Your task to perform on an android device: Empty the shopping cart on bestbuy.com. Add "sony triple a" to the cart on bestbuy.com, then select checkout. Image 0: 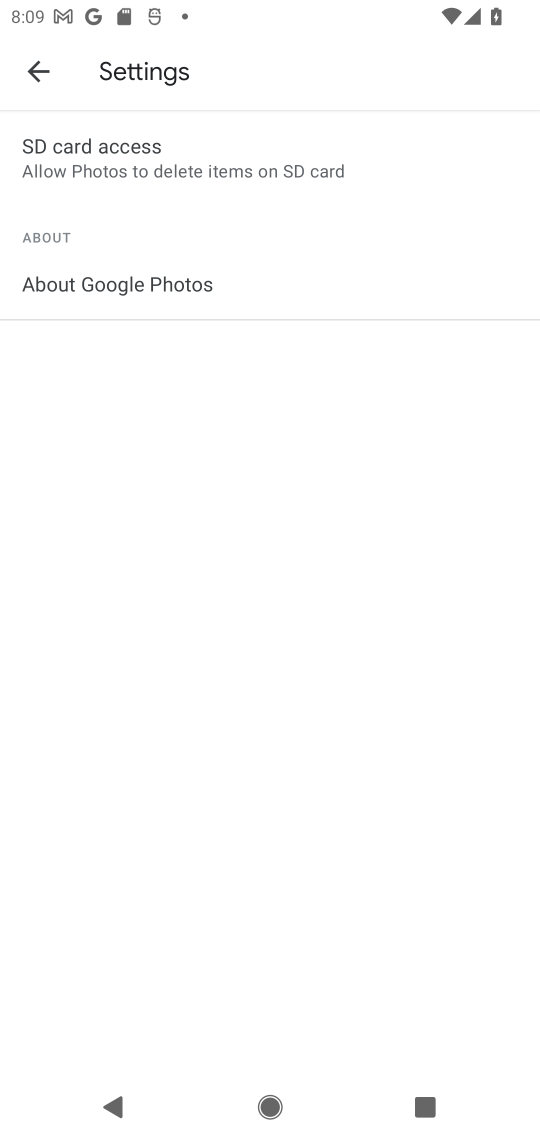
Step 0: press home button
Your task to perform on an android device: Empty the shopping cart on bestbuy.com. Add "sony triple a" to the cart on bestbuy.com, then select checkout. Image 1: 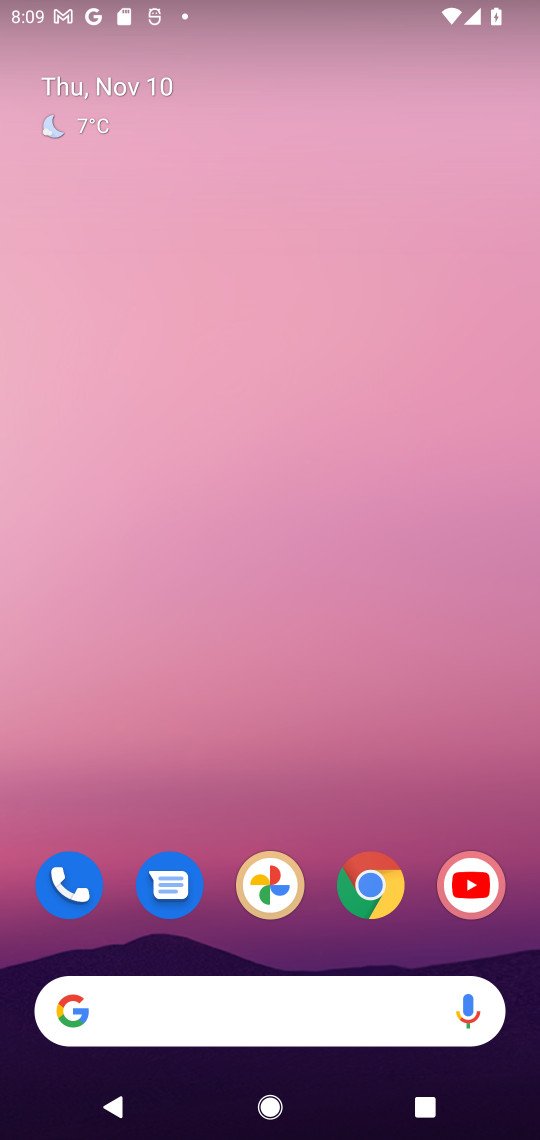
Step 1: click (355, 887)
Your task to perform on an android device: Empty the shopping cart on bestbuy.com. Add "sony triple a" to the cart on bestbuy.com, then select checkout. Image 2: 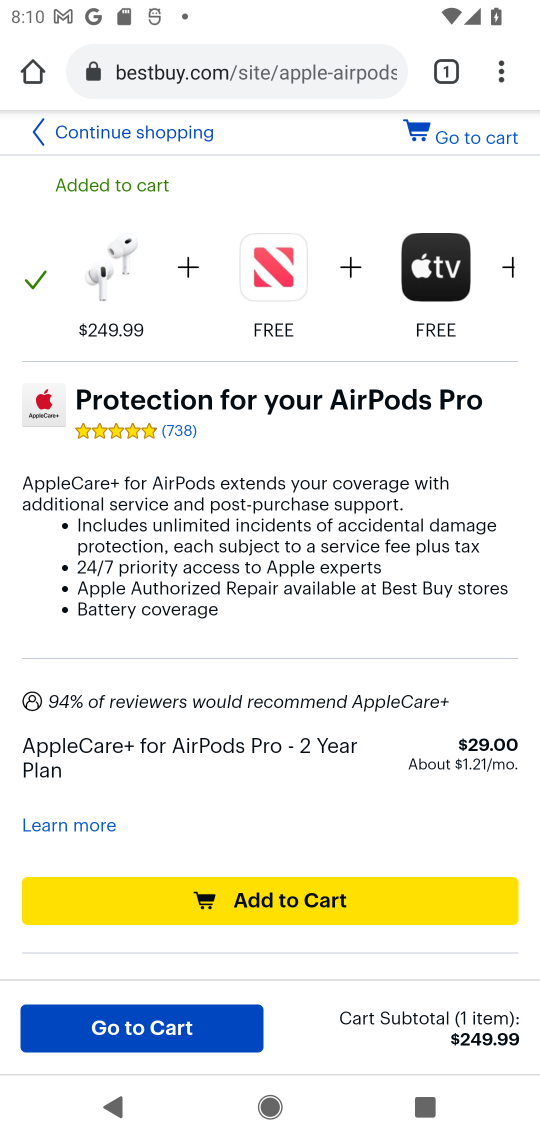
Step 2: drag from (320, 200) to (396, 800)
Your task to perform on an android device: Empty the shopping cart on bestbuy.com. Add "sony triple a" to the cart on bestbuy.com, then select checkout. Image 3: 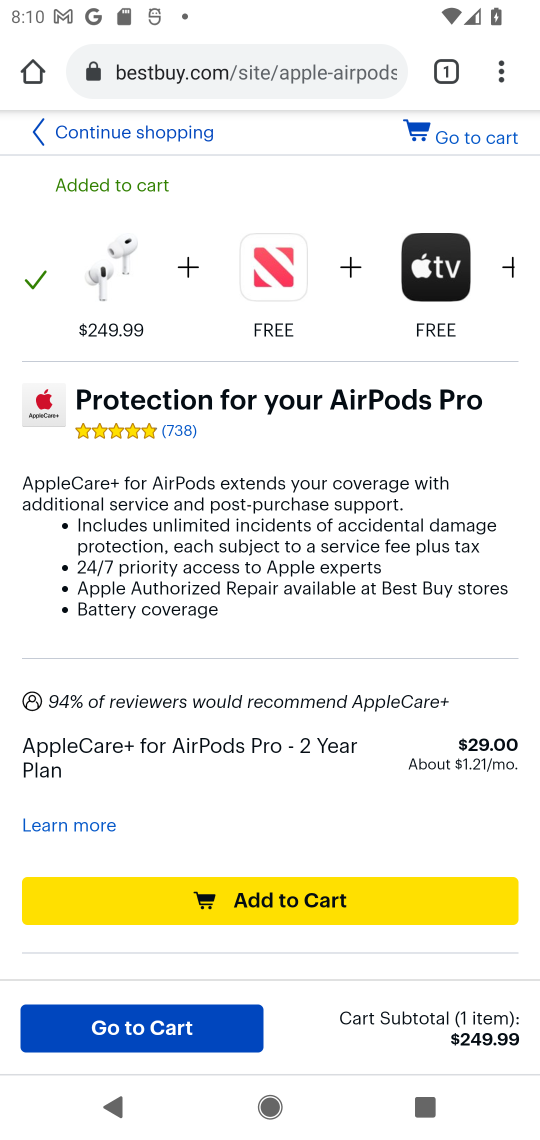
Step 3: press back button
Your task to perform on an android device: Empty the shopping cart on bestbuy.com. Add "sony triple a" to the cart on bestbuy.com, then select checkout. Image 4: 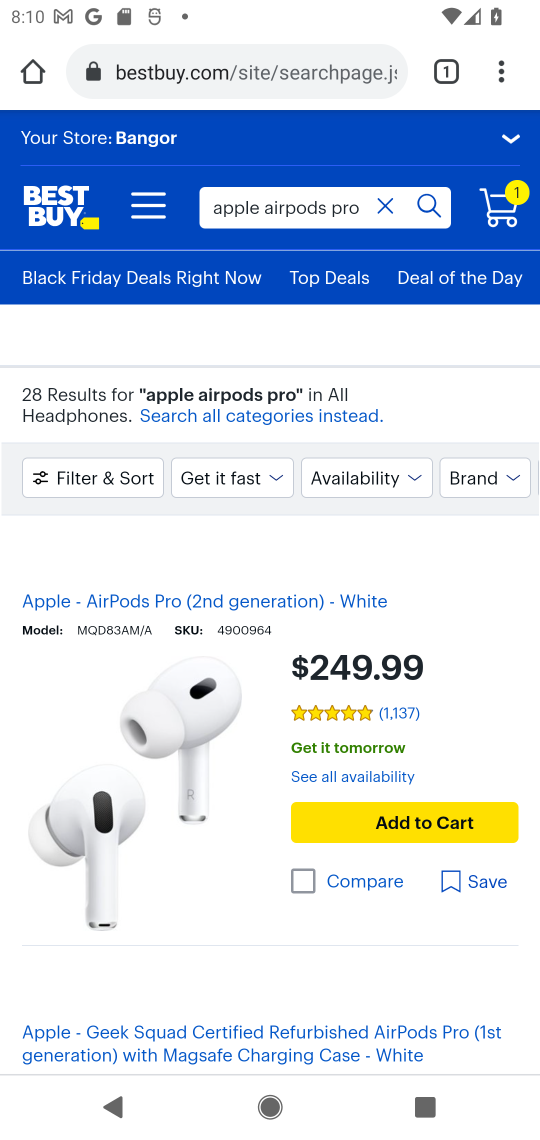
Step 4: click (384, 204)
Your task to perform on an android device: Empty the shopping cart on bestbuy.com. Add "sony triple a" to the cart on bestbuy.com, then select checkout. Image 5: 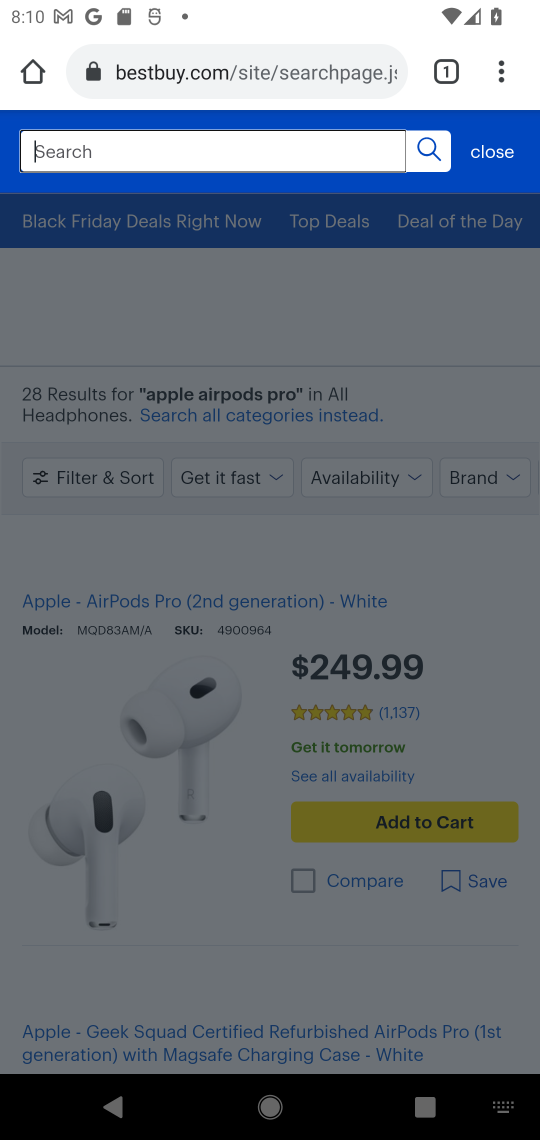
Step 5: click (487, 160)
Your task to perform on an android device: Empty the shopping cart on bestbuy.com. Add "sony triple a" to the cart on bestbuy.com, then select checkout. Image 6: 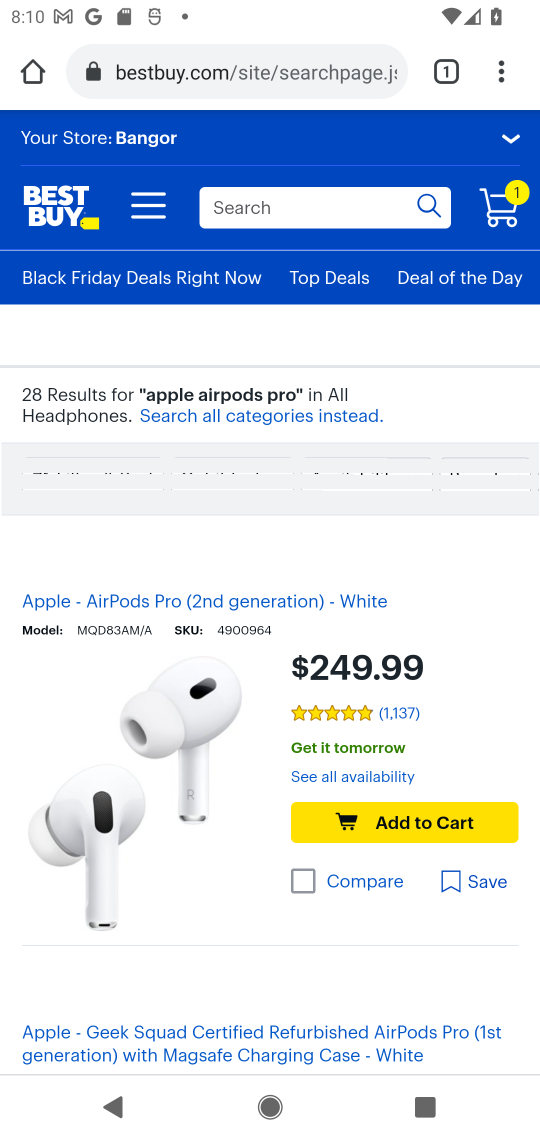
Step 6: click (501, 210)
Your task to perform on an android device: Empty the shopping cart on bestbuy.com. Add "sony triple a" to the cart on bestbuy.com, then select checkout. Image 7: 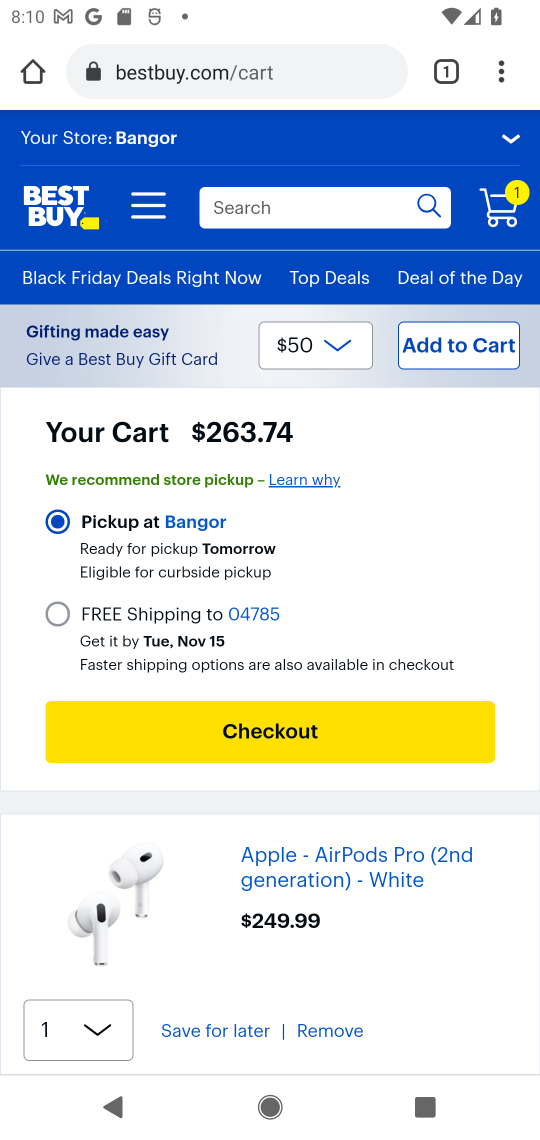
Step 7: drag from (415, 884) to (407, 676)
Your task to perform on an android device: Empty the shopping cart on bestbuy.com. Add "sony triple a" to the cart on bestbuy.com, then select checkout. Image 8: 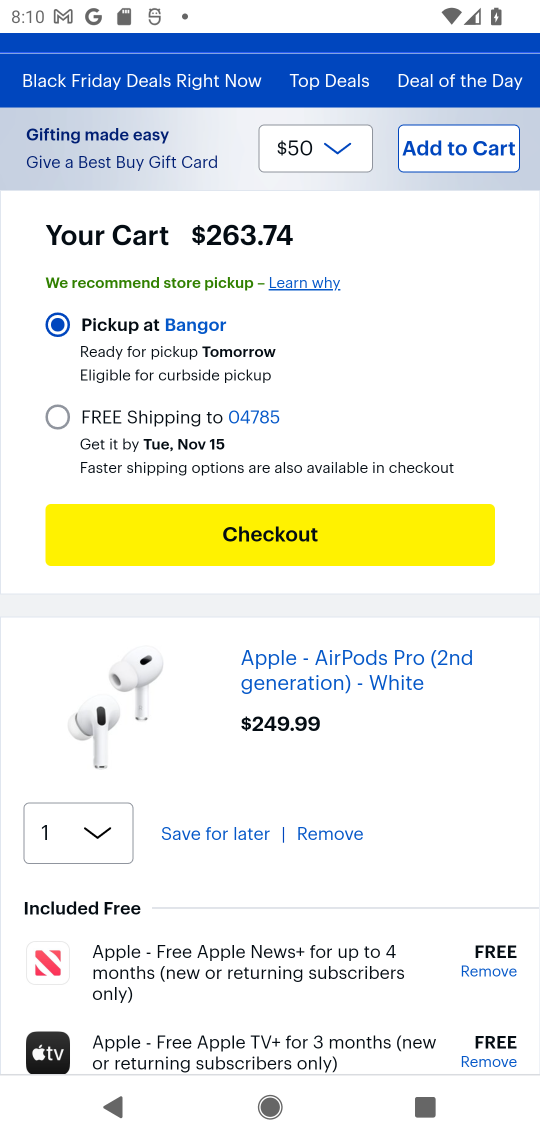
Step 8: click (319, 830)
Your task to perform on an android device: Empty the shopping cart on bestbuy.com. Add "sony triple a" to the cart on bestbuy.com, then select checkout. Image 9: 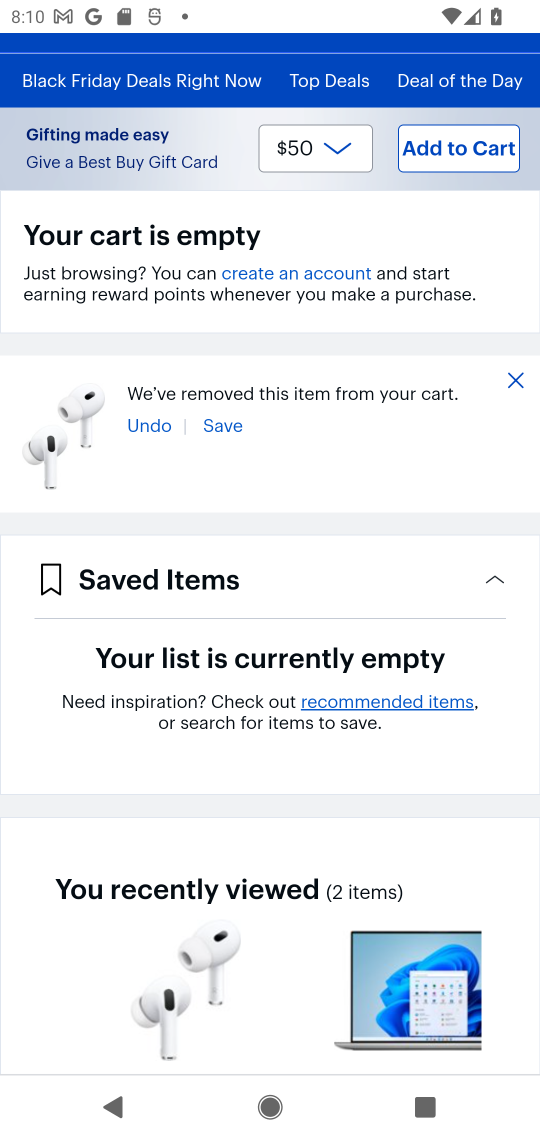
Step 9: drag from (417, 242) to (425, 840)
Your task to perform on an android device: Empty the shopping cart on bestbuy.com. Add "sony triple a" to the cart on bestbuy.com, then select checkout. Image 10: 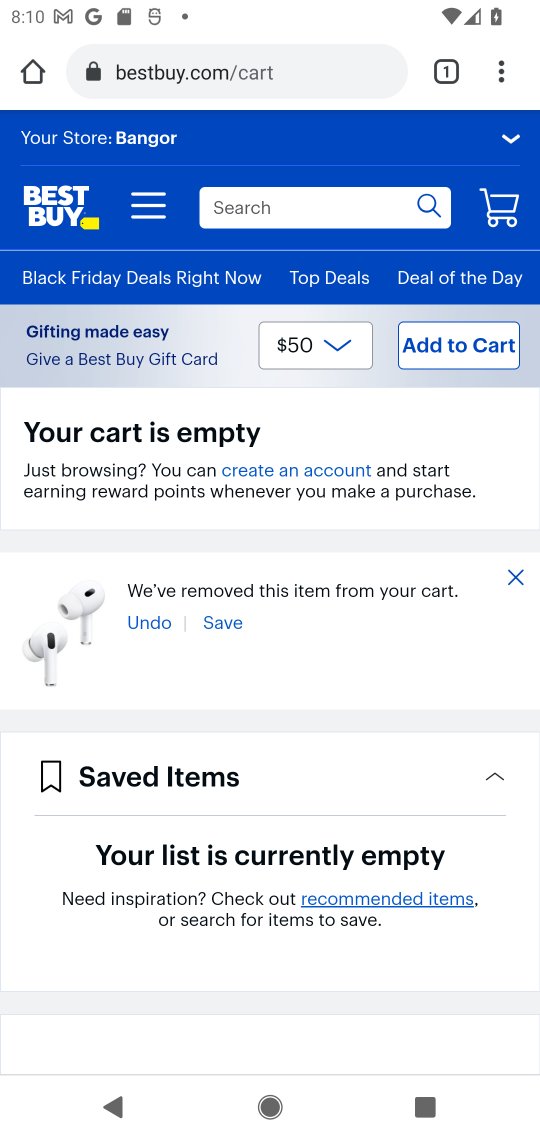
Step 10: click (345, 199)
Your task to perform on an android device: Empty the shopping cart on bestbuy.com. Add "sony triple a" to the cart on bestbuy.com, then select checkout. Image 11: 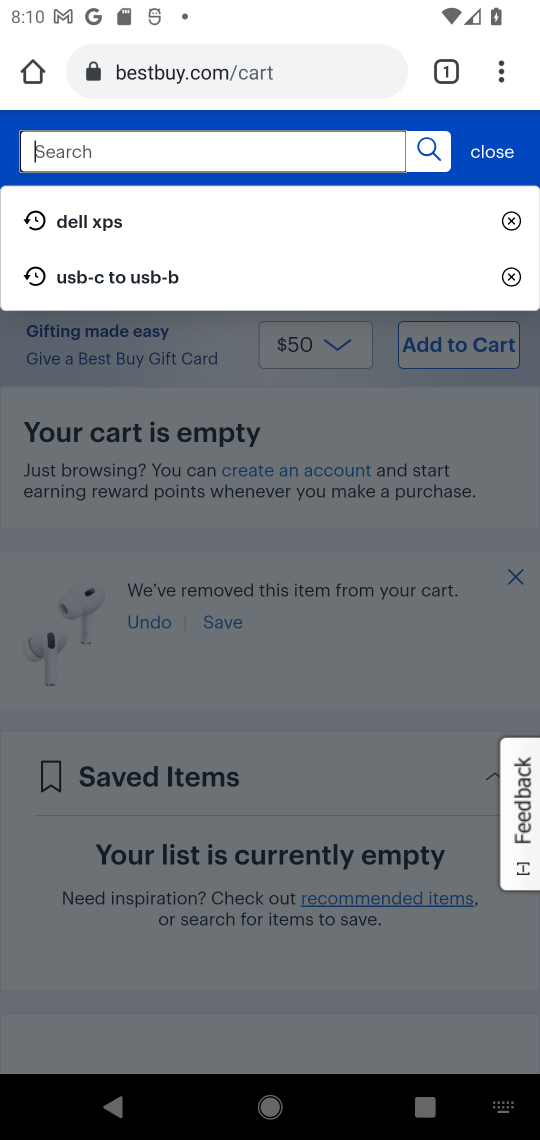
Step 11: type "sony triple a"
Your task to perform on an android device: Empty the shopping cart on bestbuy.com. Add "sony triple a" to the cart on bestbuy.com, then select checkout. Image 12: 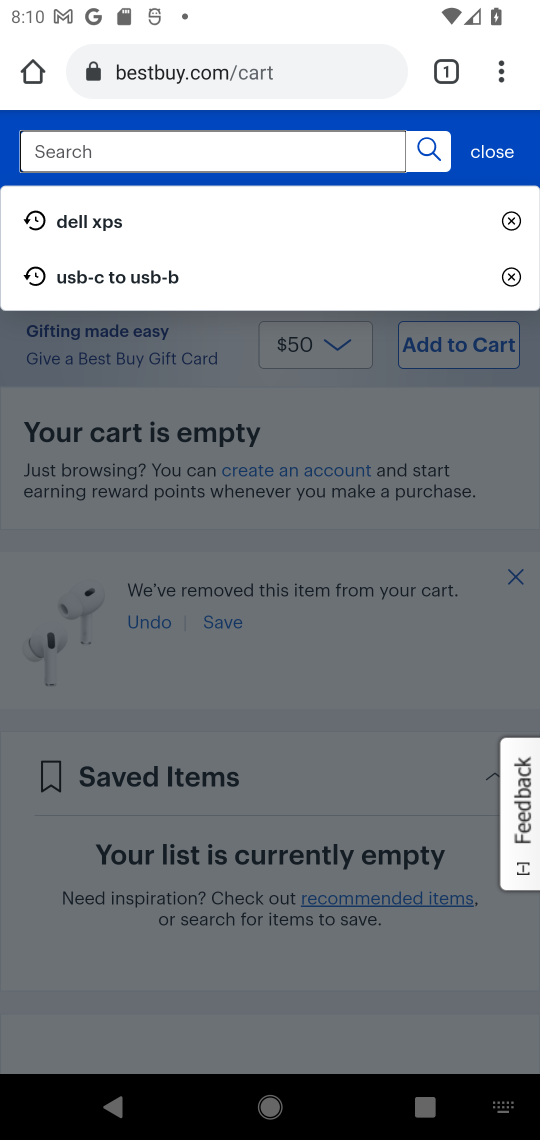
Step 12: press enter
Your task to perform on an android device: Empty the shopping cart on bestbuy.com. Add "sony triple a" to the cart on bestbuy.com, then select checkout. Image 13: 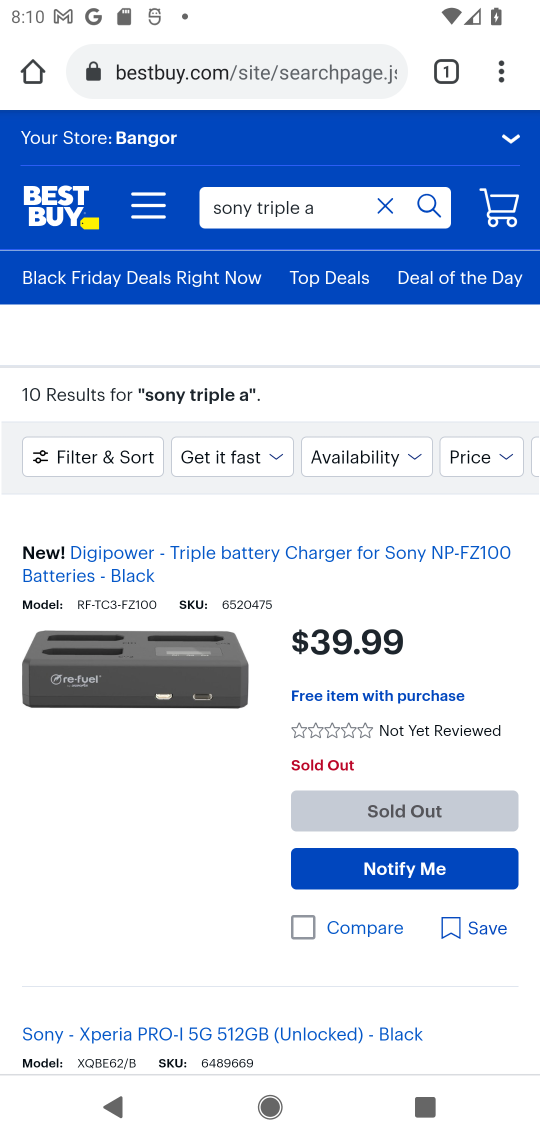
Step 13: task complete